Your task to perform on an android device: turn on data saver in the chrome app Image 0: 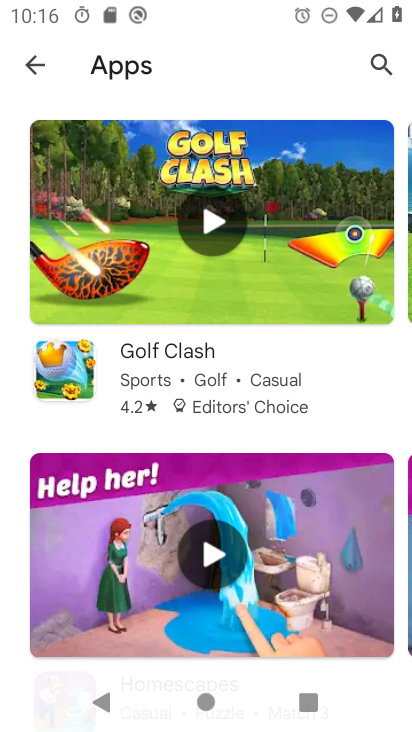
Step 0: press home button
Your task to perform on an android device: turn on data saver in the chrome app Image 1: 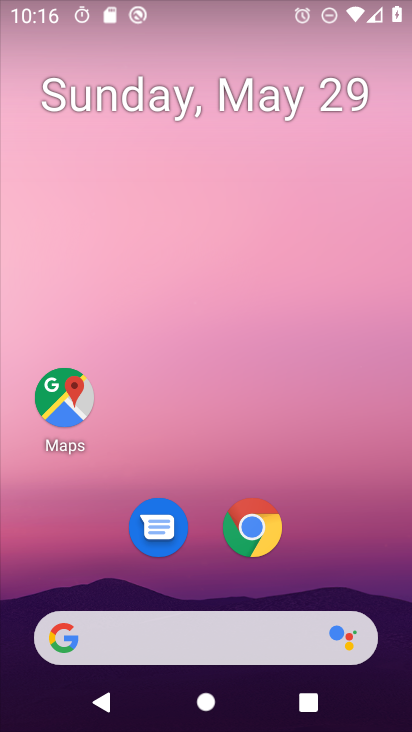
Step 1: drag from (399, 604) to (289, 54)
Your task to perform on an android device: turn on data saver in the chrome app Image 2: 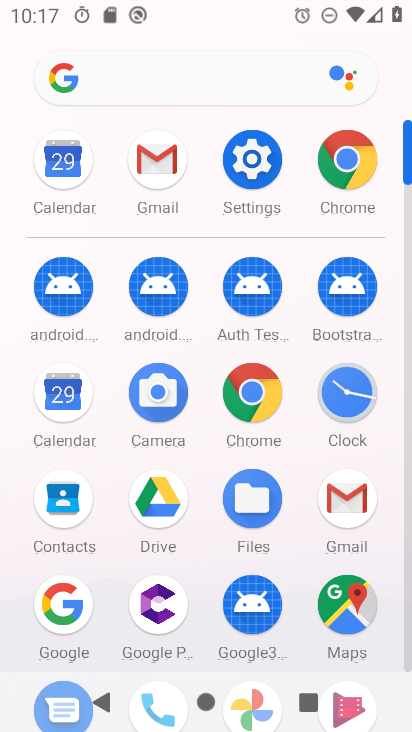
Step 2: click (263, 394)
Your task to perform on an android device: turn on data saver in the chrome app Image 3: 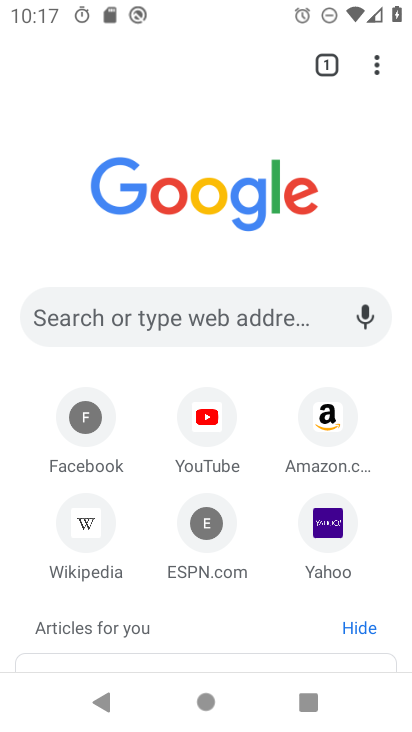
Step 3: click (377, 56)
Your task to perform on an android device: turn on data saver in the chrome app Image 4: 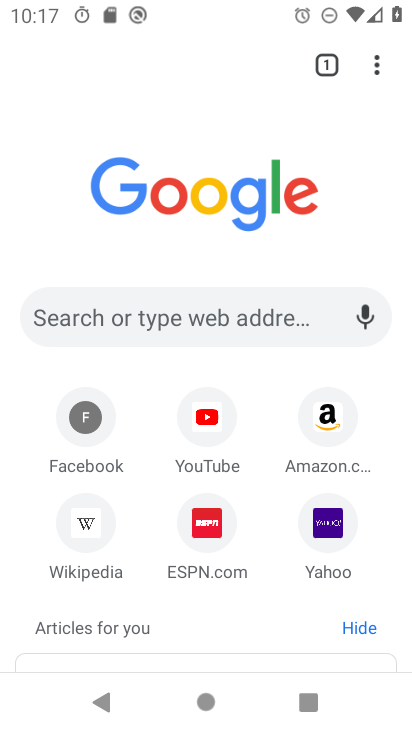
Step 4: click (377, 62)
Your task to perform on an android device: turn on data saver in the chrome app Image 5: 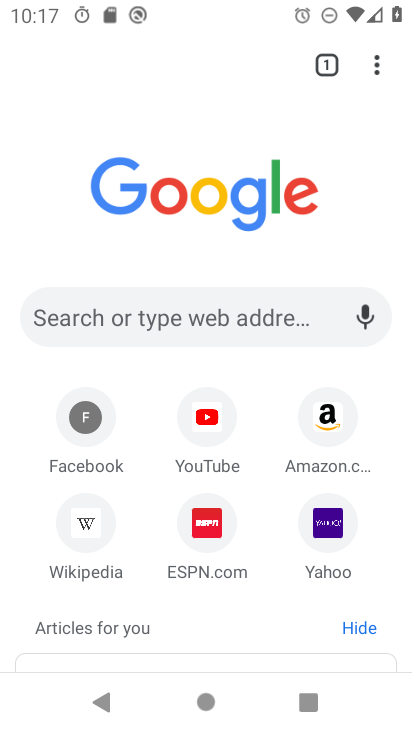
Step 5: click (377, 62)
Your task to perform on an android device: turn on data saver in the chrome app Image 6: 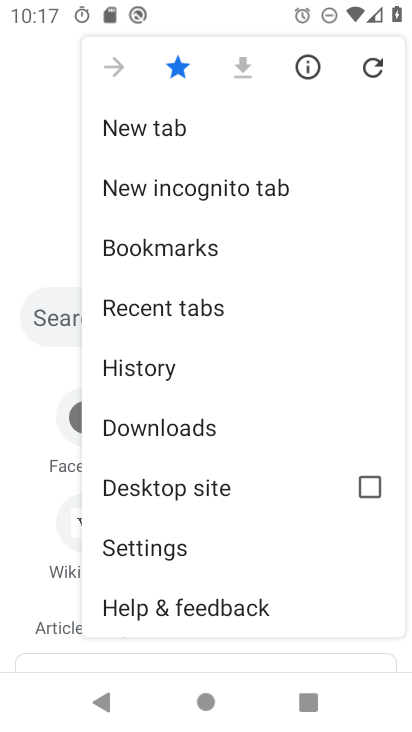
Step 6: click (166, 547)
Your task to perform on an android device: turn on data saver in the chrome app Image 7: 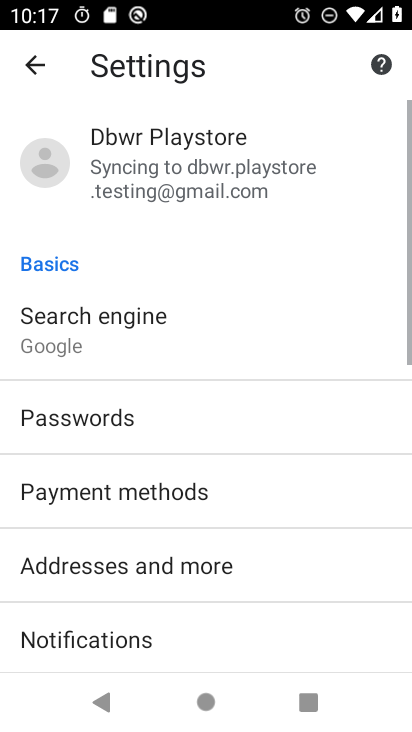
Step 7: drag from (156, 618) to (188, 238)
Your task to perform on an android device: turn on data saver in the chrome app Image 8: 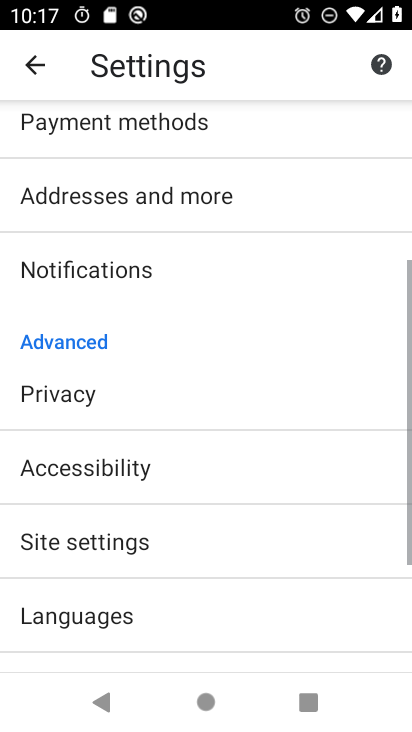
Step 8: drag from (108, 605) to (174, 220)
Your task to perform on an android device: turn on data saver in the chrome app Image 9: 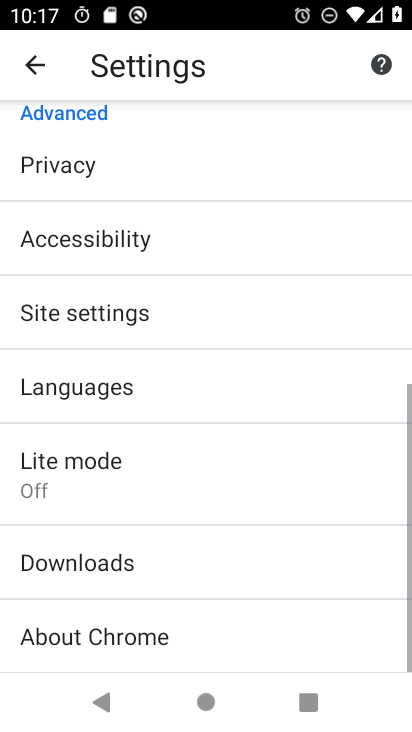
Step 9: click (126, 465)
Your task to perform on an android device: turn on data saver in the chrome app Image 10: 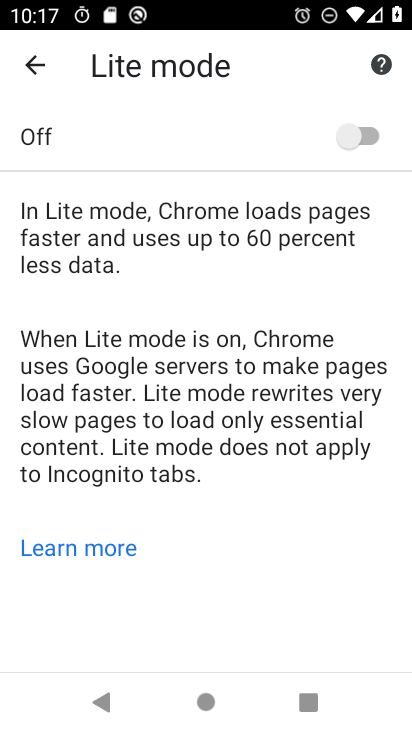
Step 10: click (349, 133)
Your task to perform on an android device: turn on data saver in the chrome app Image 11: 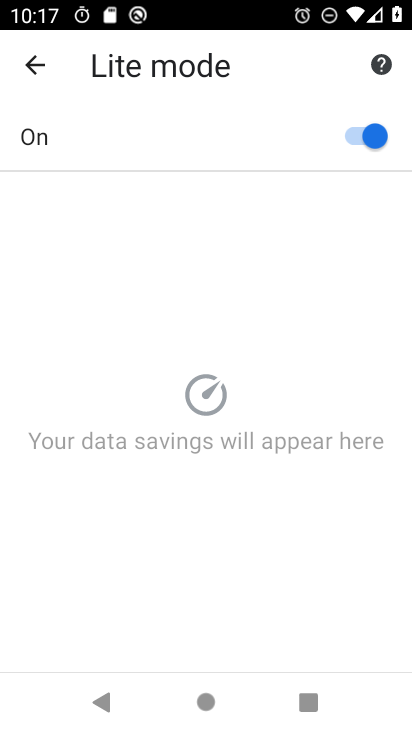
Step 11: task complete